Your task to perform on an android device: set an alarm Image 0: 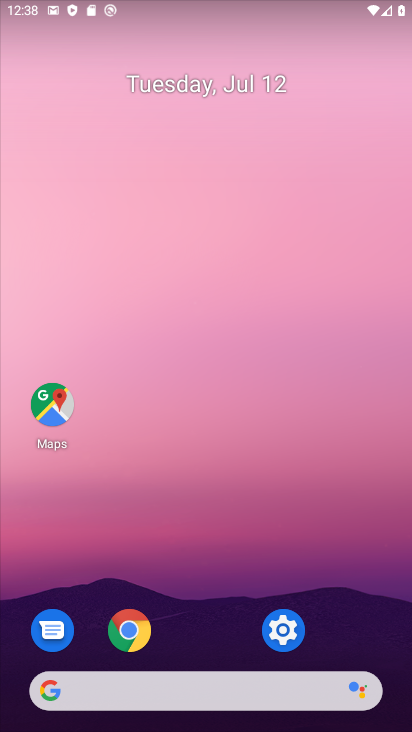
Step 0: drag from (241, 715) to (206, 131)
Your task to perform on an android device: set an alarm Image 1: 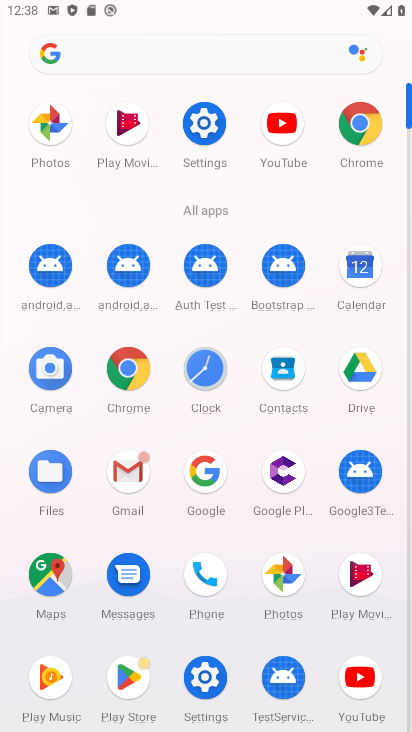
Step 1: click (200, 369)
Your task to perform on an android device: set an alarm Image 2: 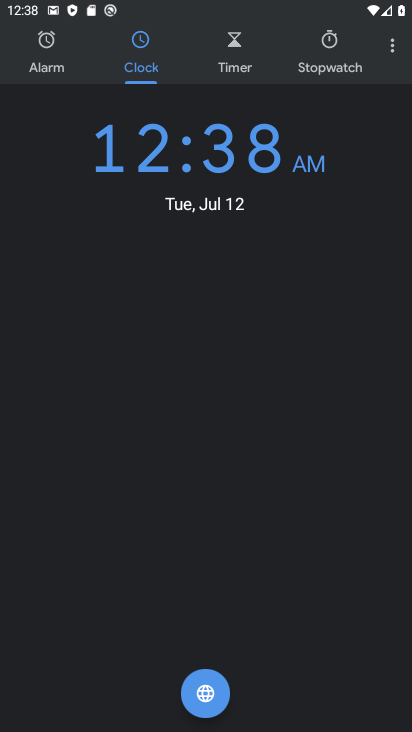
Step 2: click (49, 62)
Your task to perform on an android device: set an alarm Image 3: 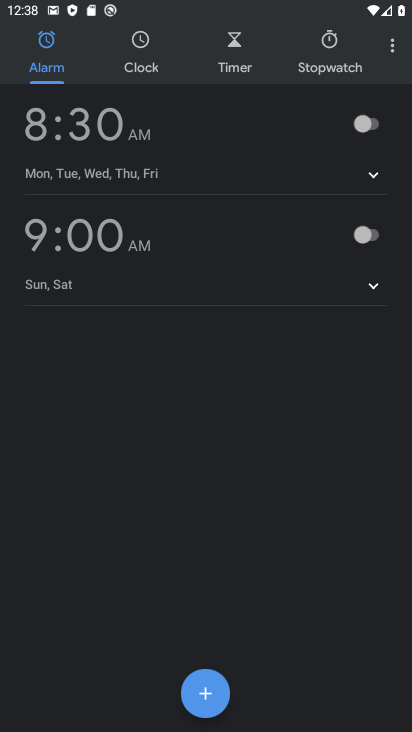
Step 3: click (371, 137)
Your task to perform on an android device: set an alarm Image 4: 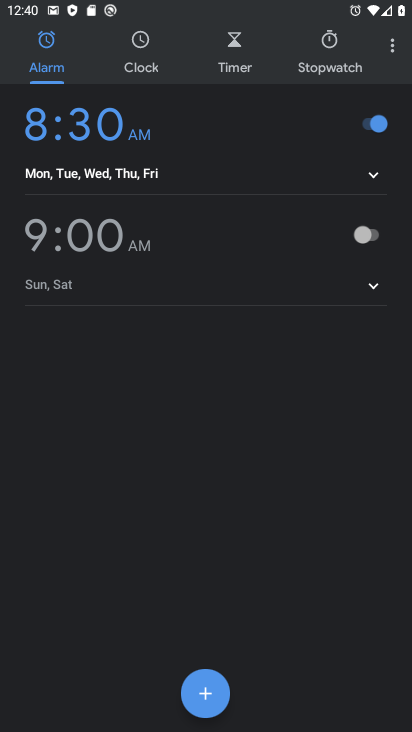
Step 4: task complete